Your task to perform on an android device: uninstall "DoorDash - Food Delivery" Image 0: 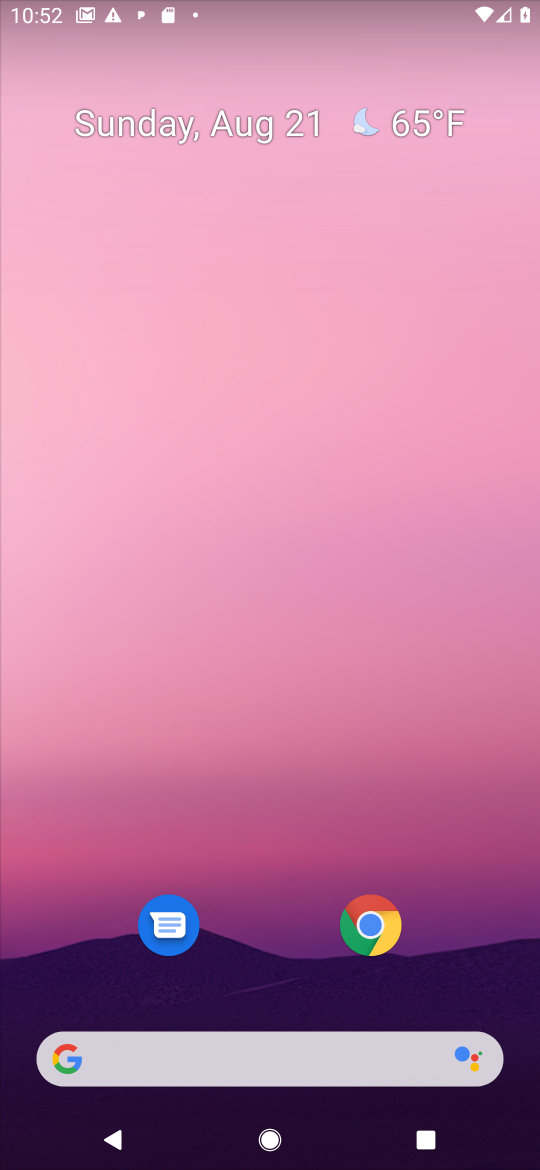
Step 0: drag from (250, 978) to (363, 51)
Your task to perform on an android device: uninstall "DoorDash - Food Delivery" Image 1: 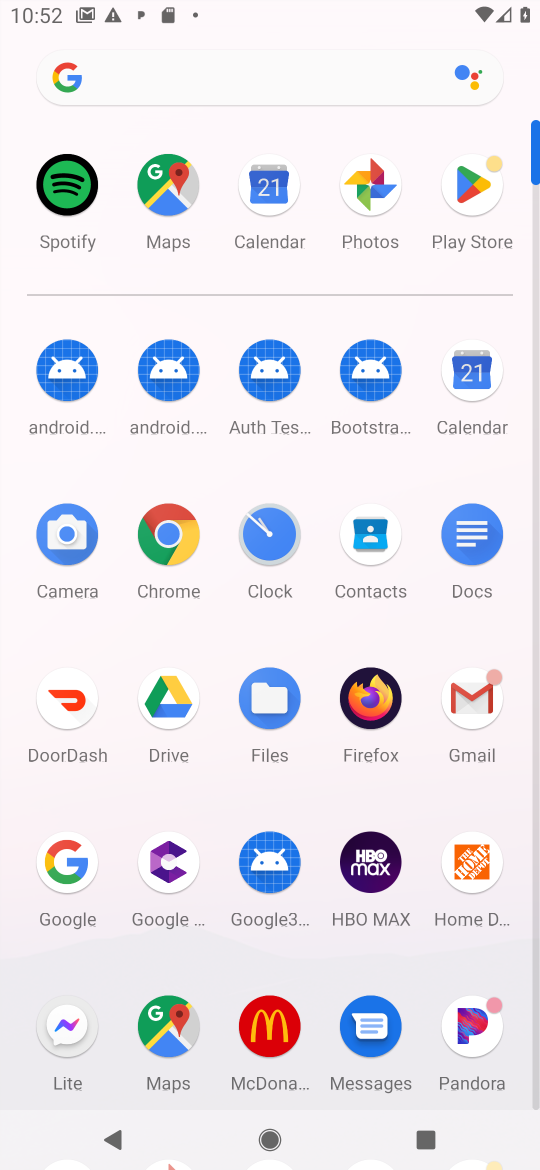
Step 1: click (472, 203)
Your task to perform on an android device: uninstall "DoorDash - Food Delivery" Image 2: 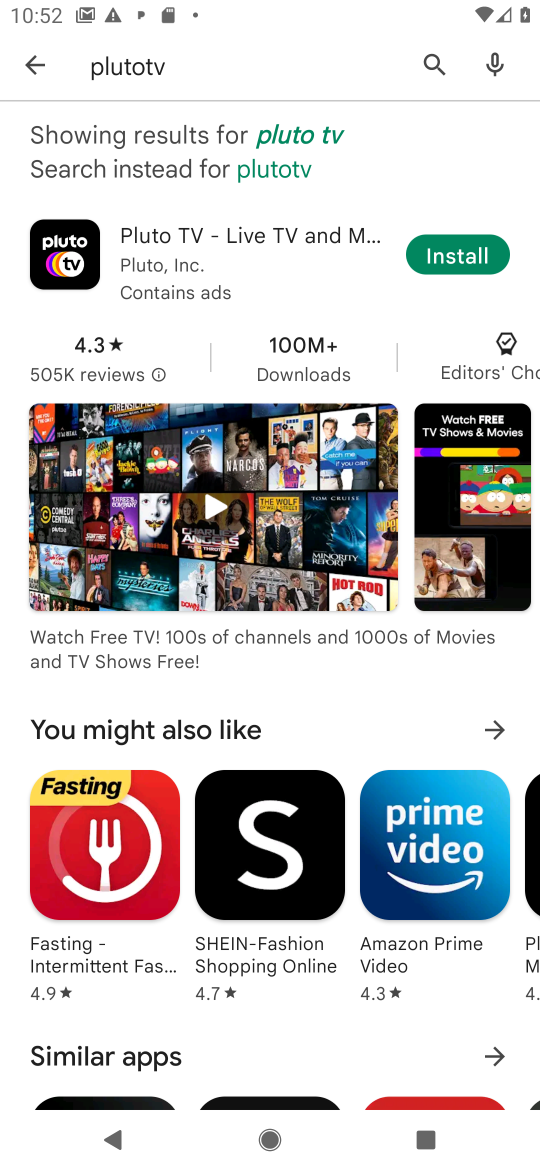
Step 2: click (411, 45)
Your task to perform on an android device: uninstall "DoorDash - Food Delivery" Image 3: 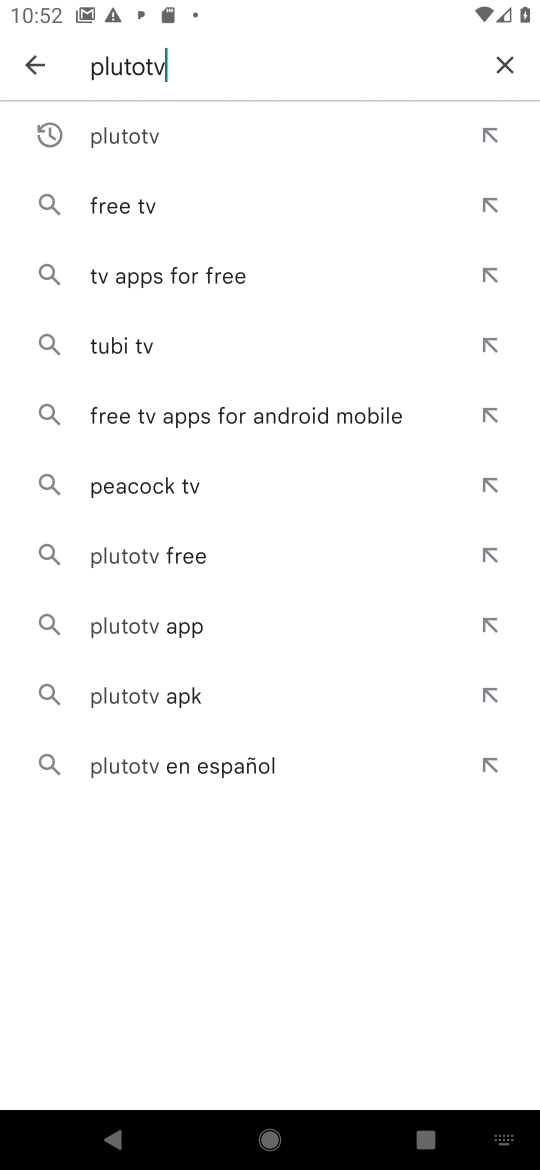
Step 3: click (510, 51)
Your task to perform on an android device: uninstall "DoorDash - Food Delivery" Image 4: 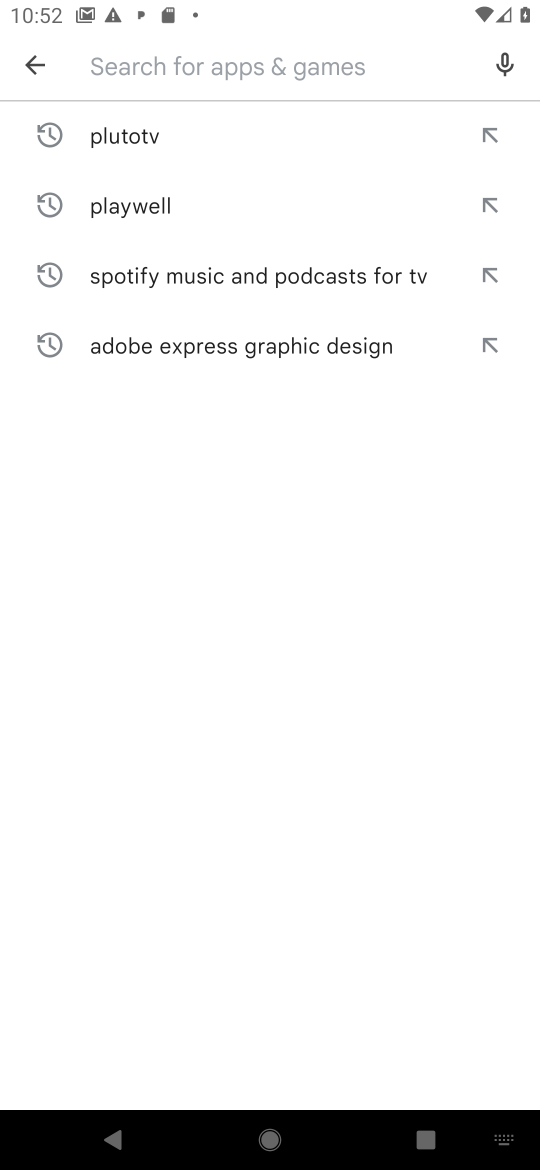
Step 4: click (248, 63)
Your task to perform on an android device: uninstall "DoorDash - Food Delivery" Image 5: 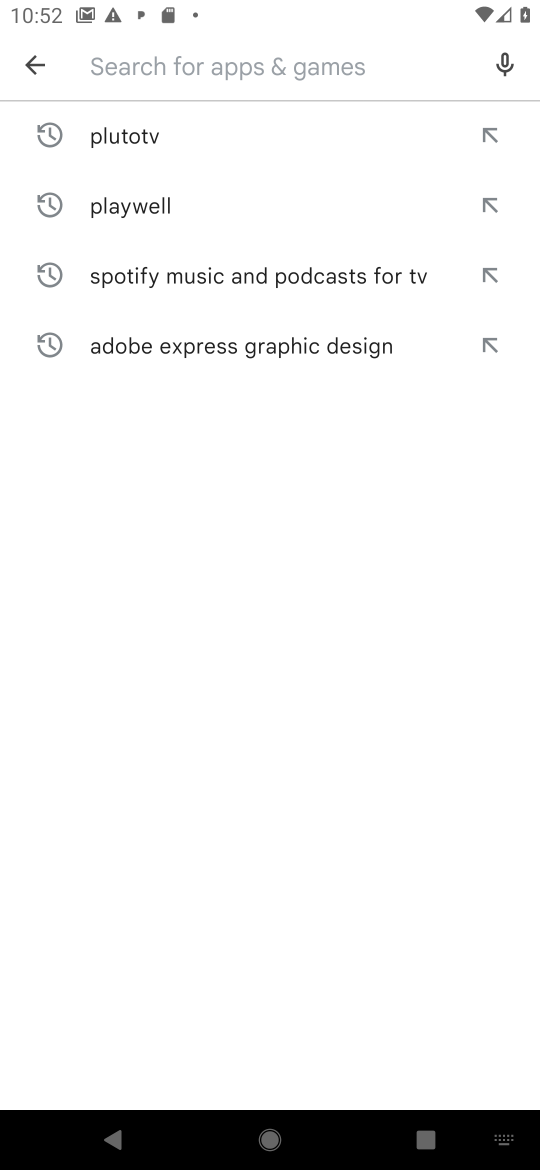
Step 5: type "doordash"
Your task to perform on an android device: uninstall "DoorDash - Food Delivery" Image 6: 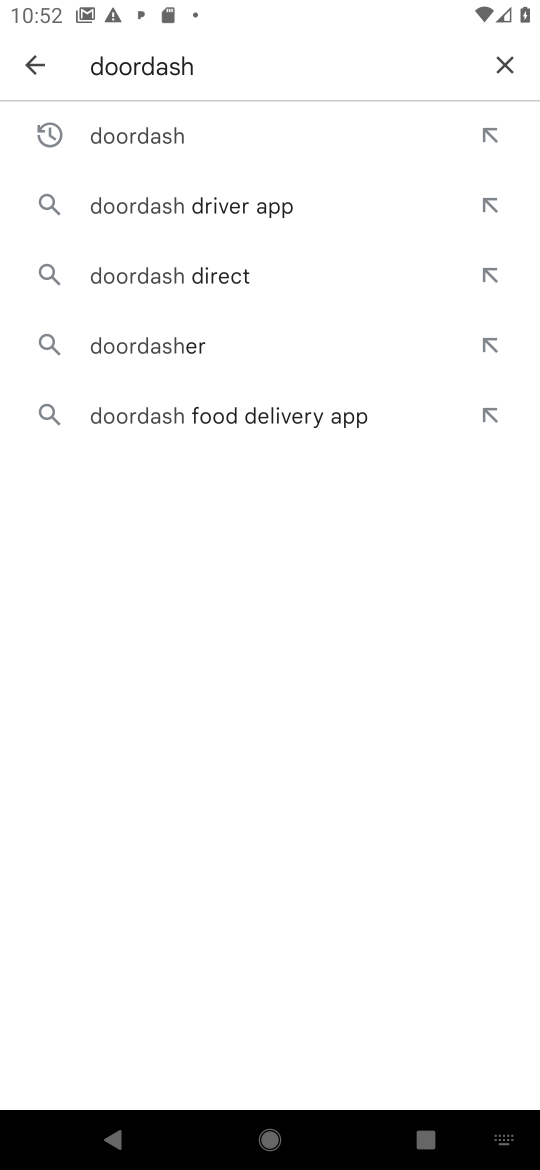
Step 6: click (140, 130)
Your task to perform on an android device: uninstall "DoorDash - Food Delivery" Image 7: 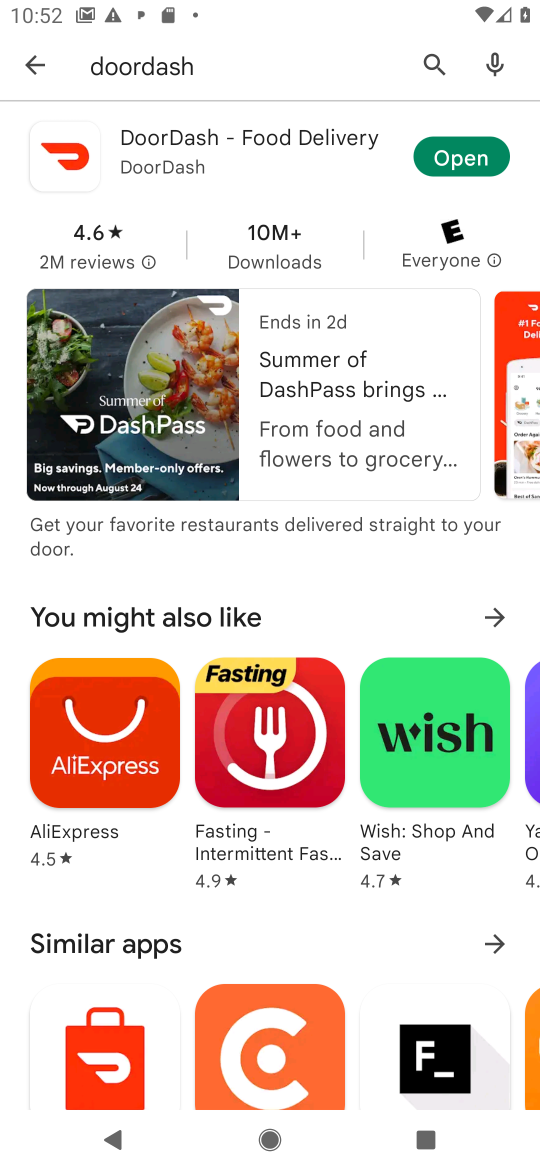
Step 7: click (207, 162)
Your task to perform on an android device: uninstall "DoorDash - Food Delivery" Image 8: 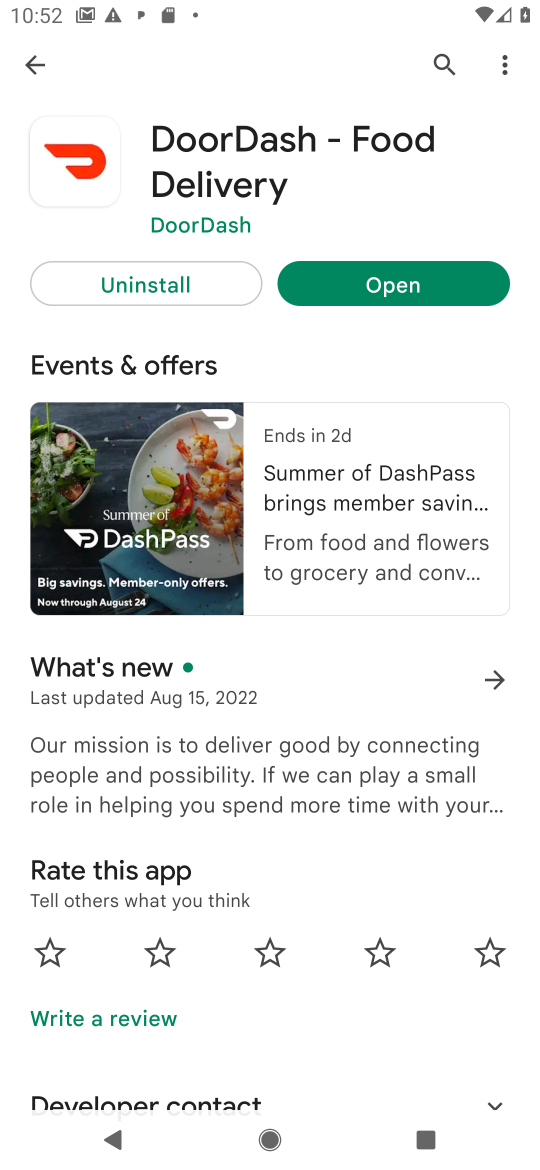
Step 8: click (198, 288)
Your task to perform on an android device: uninstall "DoorDash - Food Delivery" Image 9: 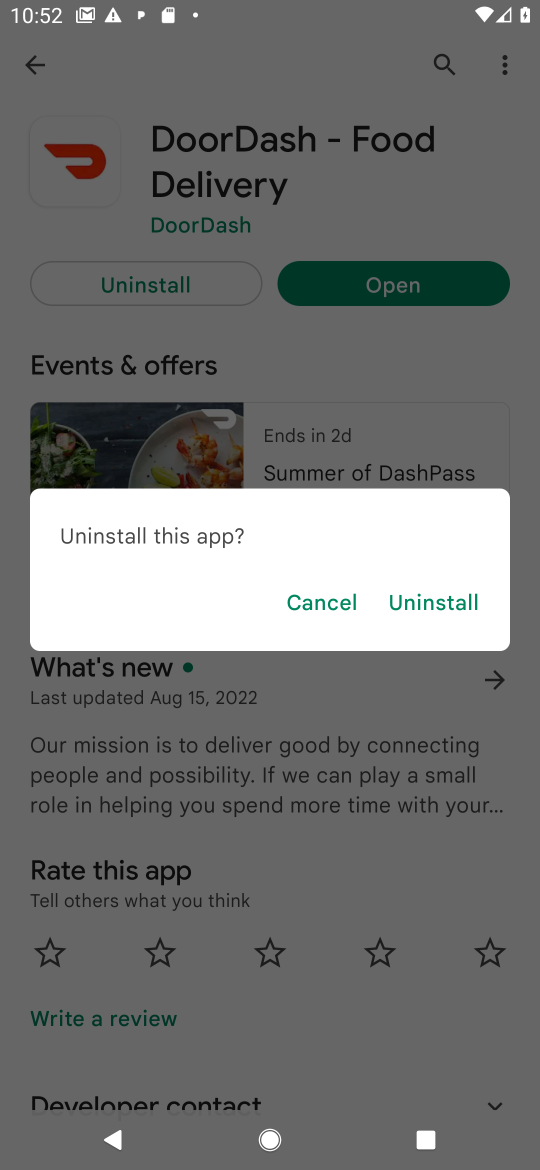
Step 9: click (421, 604)
Your task to perform on an android device: uninstall "DoorDash - Food Delivery" Image 10: 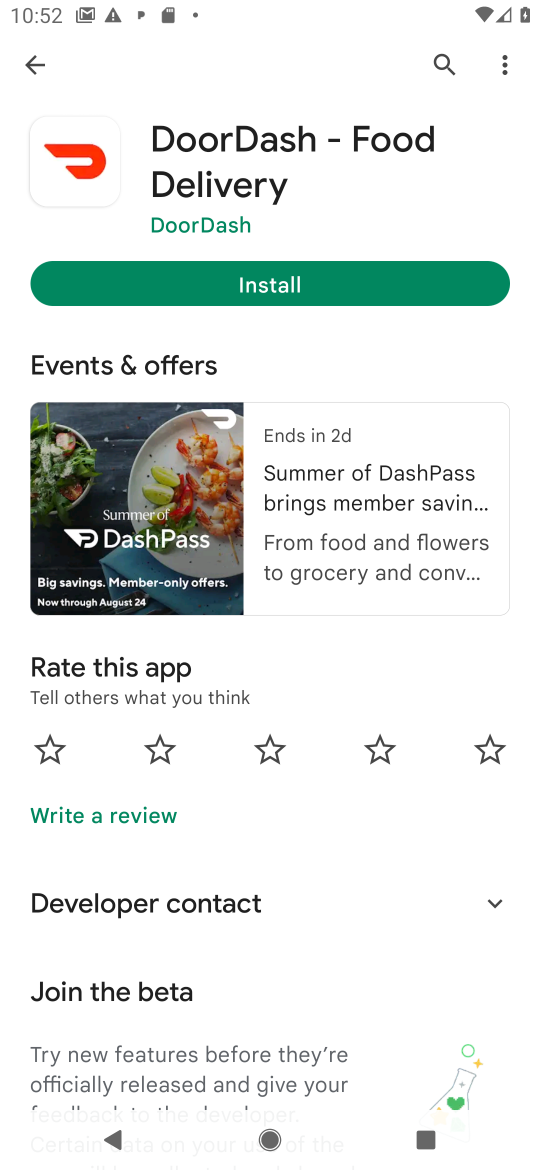
Step 10: task complete